Your task to perform on an android device: open sync settings in chrome Image 0: 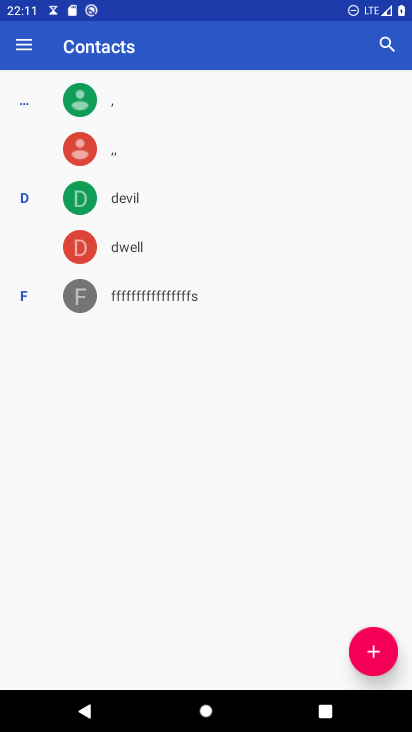
Step 0: press home button
Your task to perform on an android device: open sync settings in chrome Image 1: 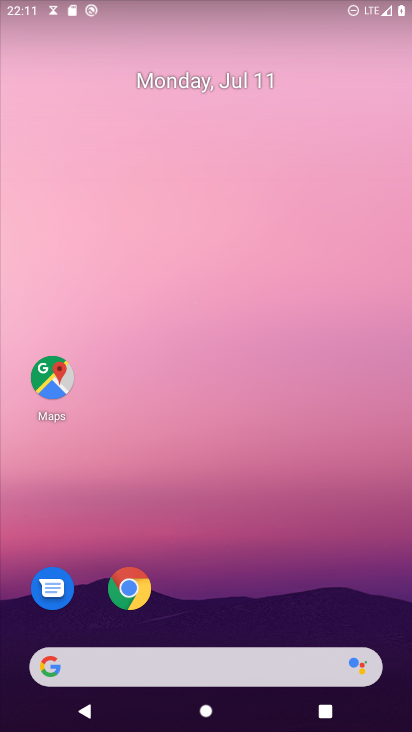
Step 1: click (133, 592)
Your task to perform on an android device: open sync settings in chrome Image 2: 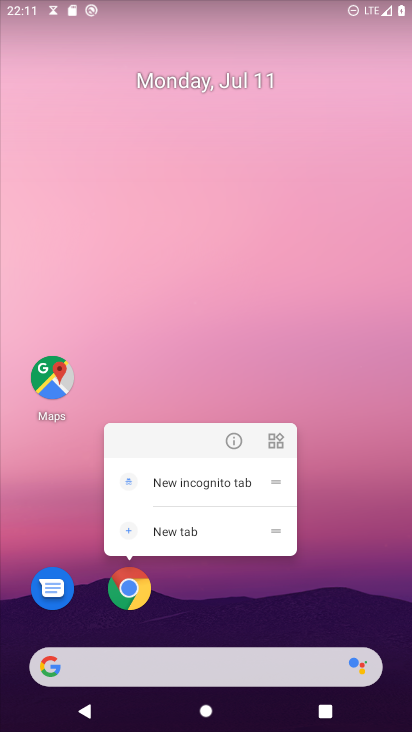
Step 2: click (133, 592)
Your task to perform on an android device: open sync settings in chrome Image 3: 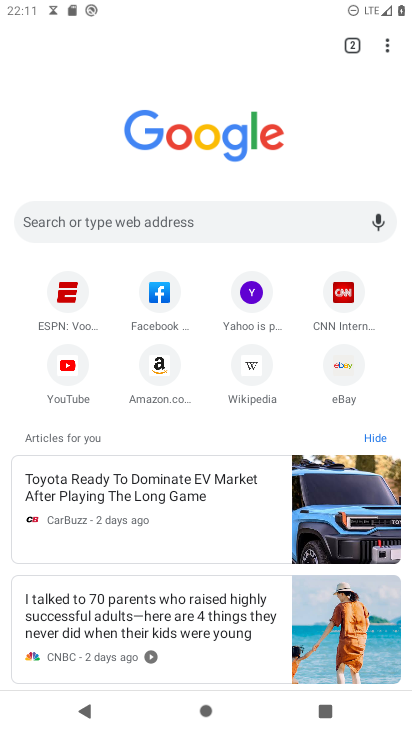
Step 3: drag from (387, 42) to (245, 371)
Your task to perform on an android device: open sync settings in chrome Image 4: 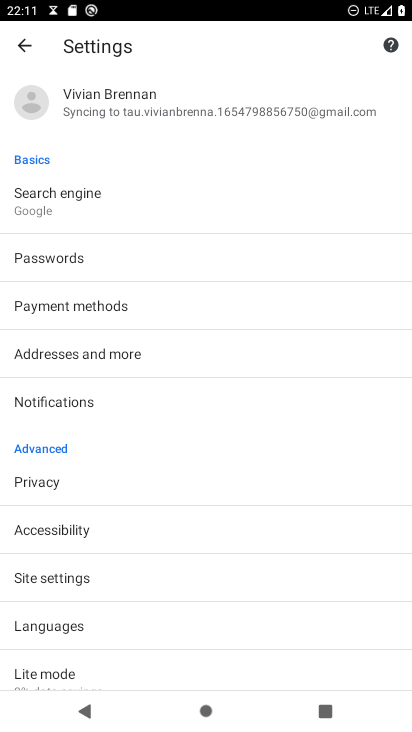
Step 4: click (81, 577)
Your task to perform on an android device: open sync settings in chrome Image 5: 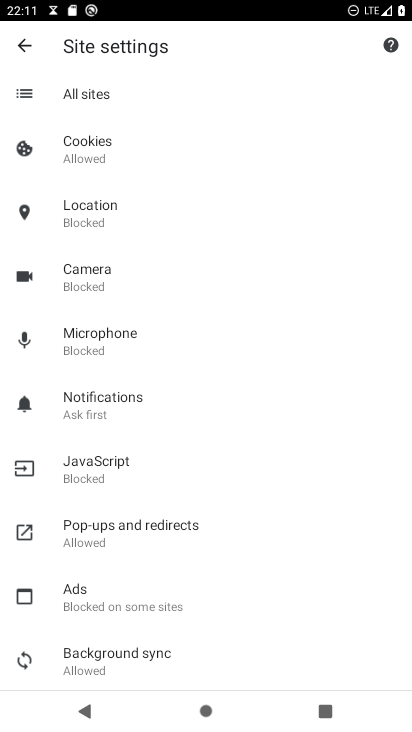
Step 5: drag from (247, 600) to (208, 128)
Your task to perform on an android device: open sync settings in chrome Image 6: 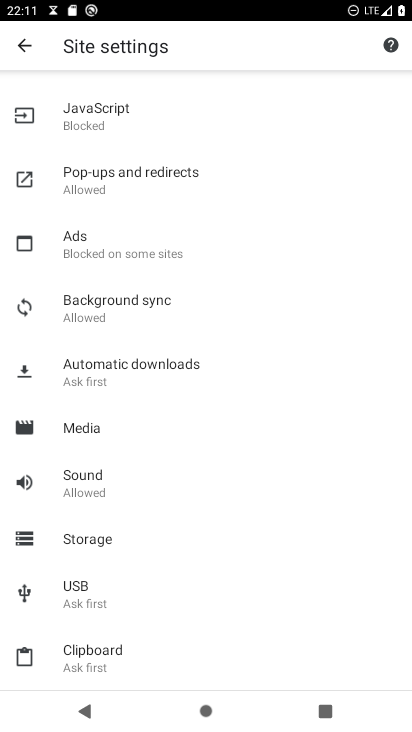
Step 6: drag from (205, 620) to (231, 221)
Your task to perform on an android device: open sync settings in chrome Image 7: 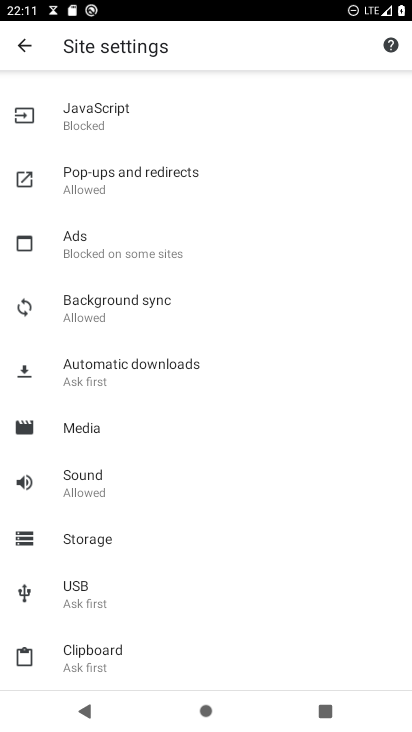
Step 7: drag from (195, 222) to (195, 473)
Your task to perform on an android device: open sync settings in chrome Image 8: 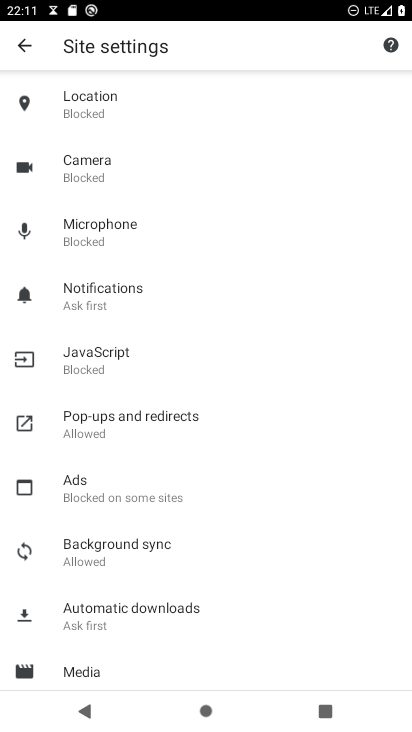
Step 8: click (118, 546)
Your task to perform on an android device: open sync settings in chrome Image 9: 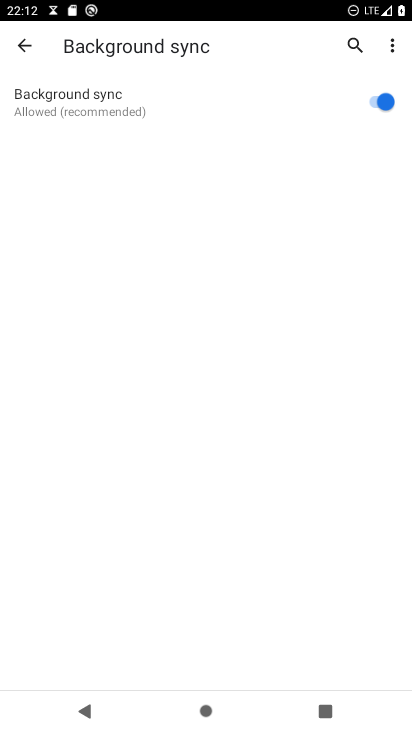
Step 9: task complete